Your task to perform on an android device: add a contact in the contacts app Image 0: 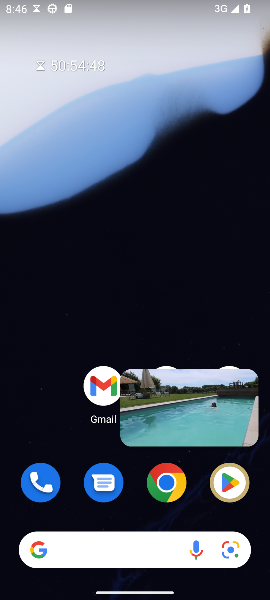
Step 0: click (240, 382)
Your task to perform on an android device: add a contact in the contacts app Image 1: 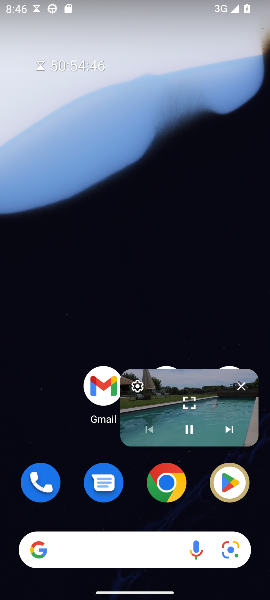
Step 1: click (243, 389)
Your task to perform on an android device: add a contact in the contacts app Image 2: 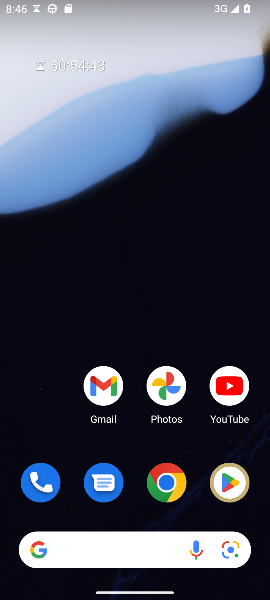
Step 2: drag from (45, 526) to (119, 116)
Your task to perform on an android device: add a contact in the contacts app Image 3: 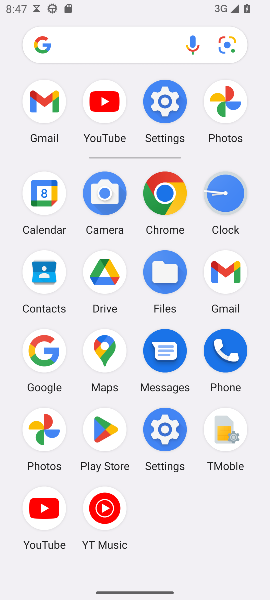
Step 3: click (219, 353)
Your task to perform on an android device: add a contact in the contacts app Image 4: 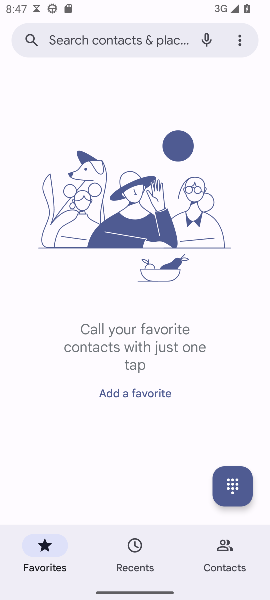
Step 4: click (239, 539)
Your task to perform on an android device: add a contact in the contacts app Image 5: 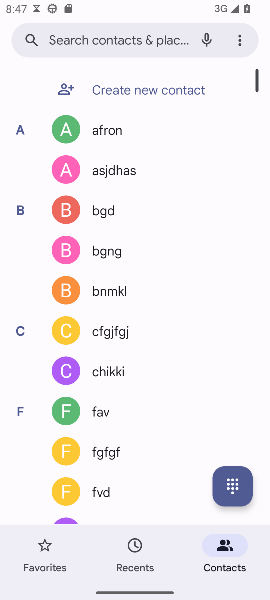
Step 5: click (111, 93)
Your task to perform on an android device: add a contact in the contacts app Image 6: 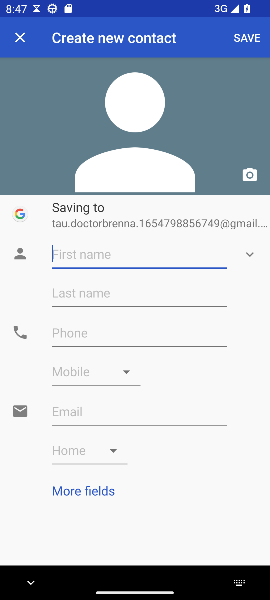
Step 6: type "rty"
Your task to perform on an android device: add a contact in the contacts app Image 7: 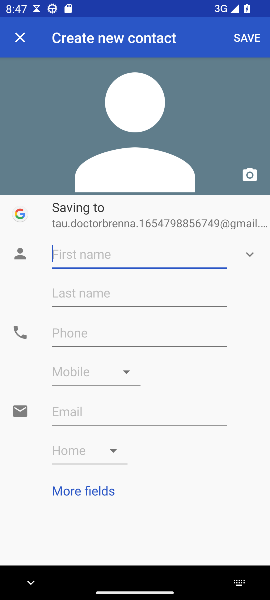
Step 7: click (105, 334)
Your task to perform on an android device: add a contact in the contacts app Image 8: 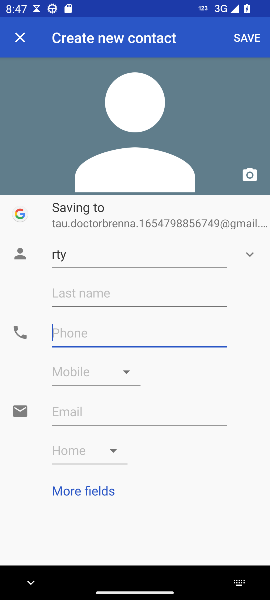
Step 8: type "4567876545"
Your task to perform on an android device: add a contact in the contacts app Image 9: 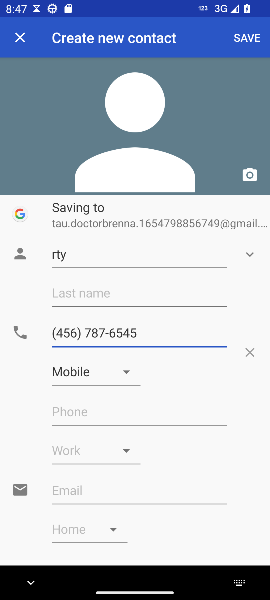
Step 9: click (256, 44)
Your task to perform on an android device: add a contact in the contacts app Image 10: 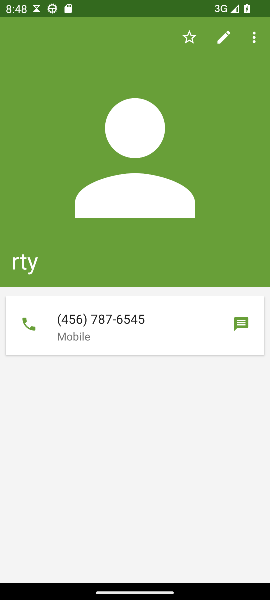
Step 10: task complete